Your task to perform on an android device: turn on showing notifications on the lock screen Image 0: 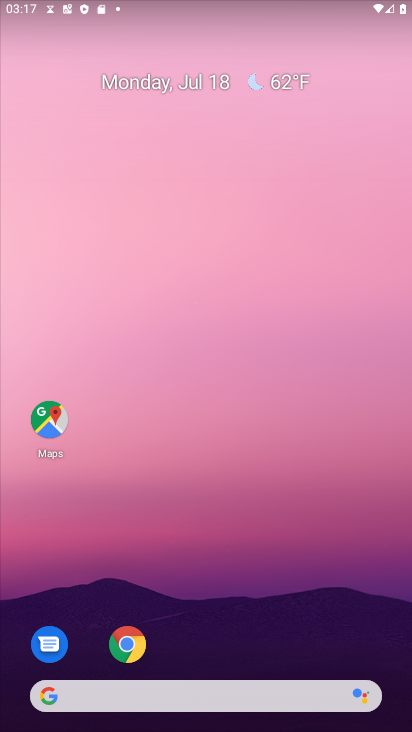
Step 0: drag from (339, 672) to (243, 100)
Your task to perform on an android device: turn on showing notifications on the lock screen Image 1: 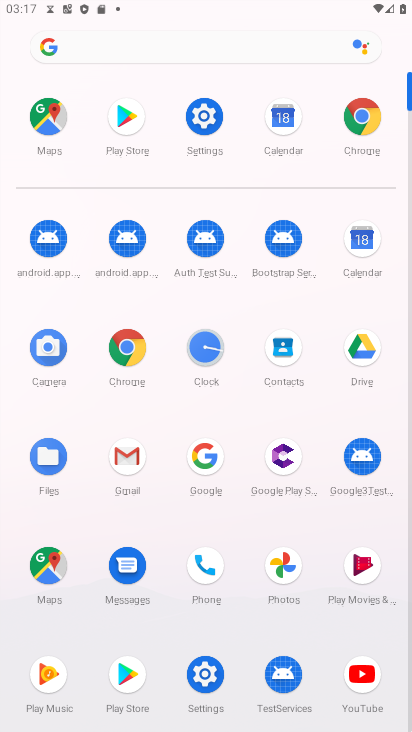
Step 1: click (224, 124)
Your task to perform on an android device: turn on showing notifications on the lock screen Image 2: 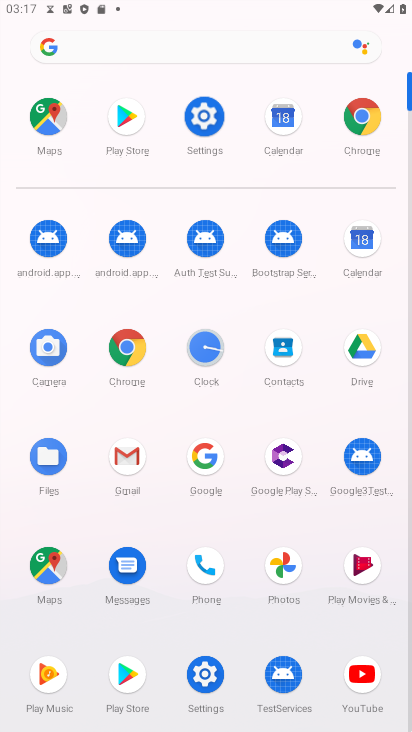
Step 2: click (217, 115)
Your task to perform on an android device: turn on showing notifications on the lock screen Image 3: 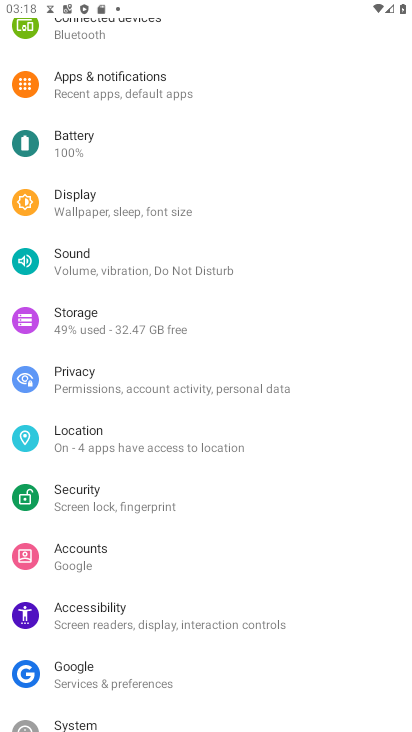
Step 3: click (120, 82)
Your task to perform on an android device: turn on showing notifications on the lock screen Image 4: 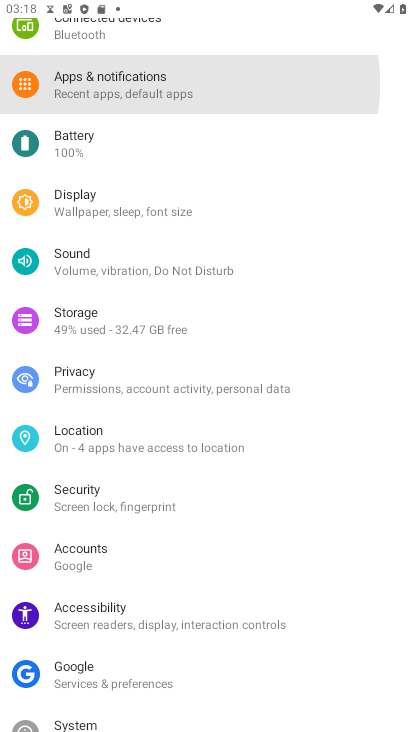
Step 4: click (124, 86)
Your task to perform on an android device: turn on showing notifications on the lock screen Image 5: 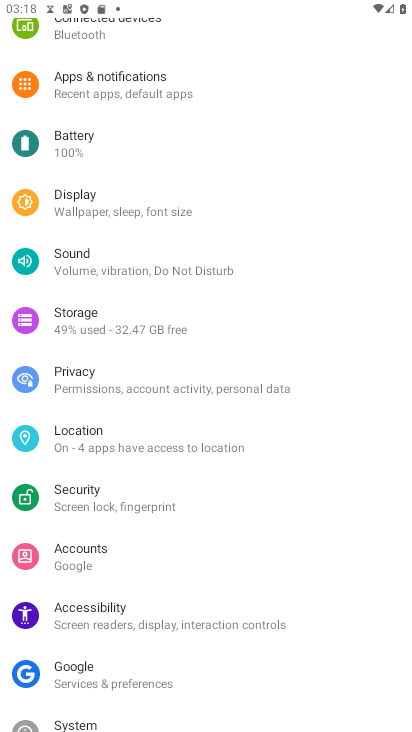
Step 5: click (124, 89)
Your task to perform on an android device: turn on showing notifications on the lock screen Image 6: 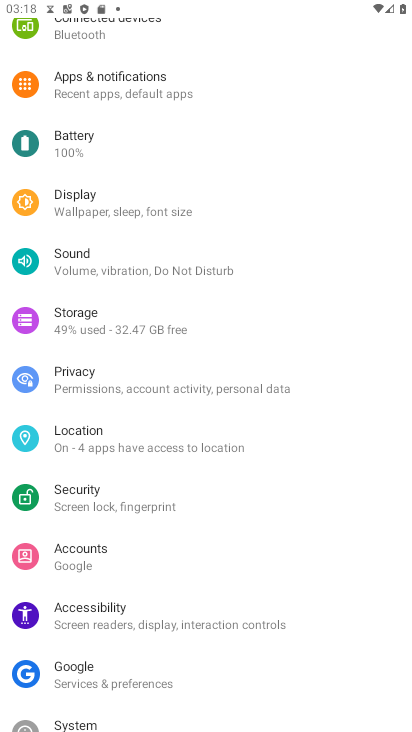
Step 6: click (124, 89)
Your task to perform on an android device: turn on showing notifications on the lock screen Image 7: 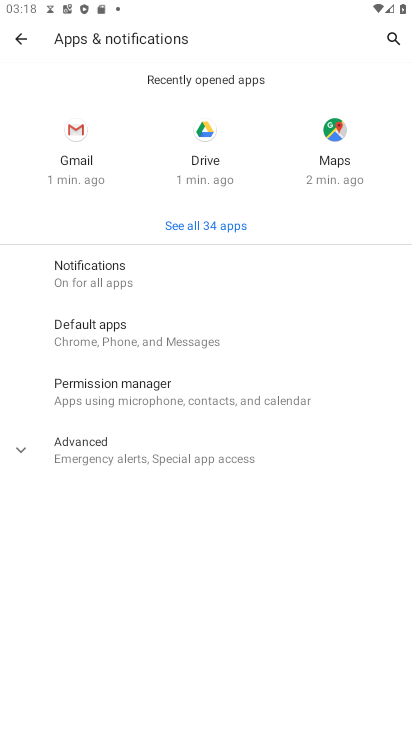
Step 7: click (89, 266)
Your task to perform on an android device: turn on showing notifications on the lock screen Image 8: 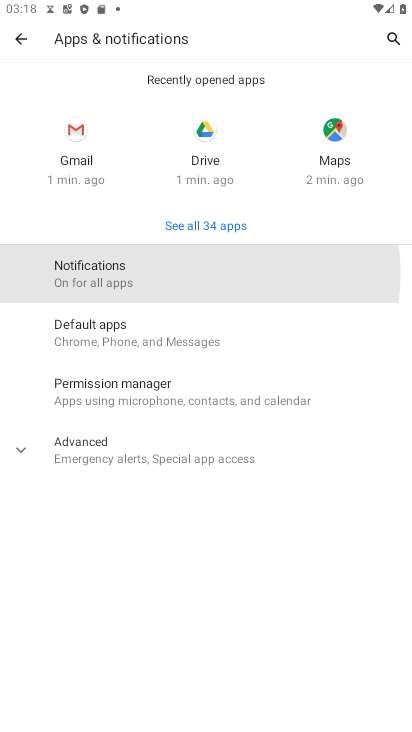
Step 8: click (90, 266)
Your task to perform on an android device: turn on showing notifications on the lock screen Image 9: 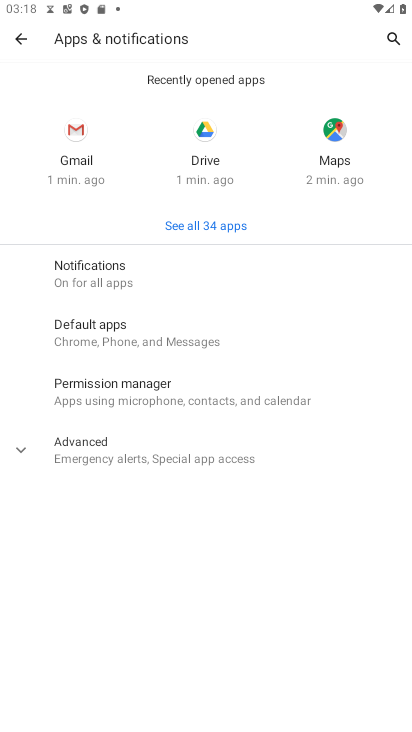
Step 9: click (90, 266)
Your task to perform on an android device: turn on showing notifications on the lock screen Image 10: 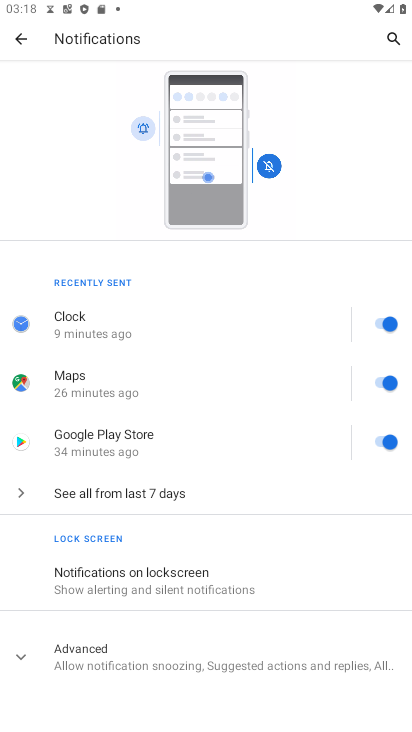
Step 10: click (143, 569)
Your task to perform on an android device: turn on showing notifications on the lock screen Image 11: 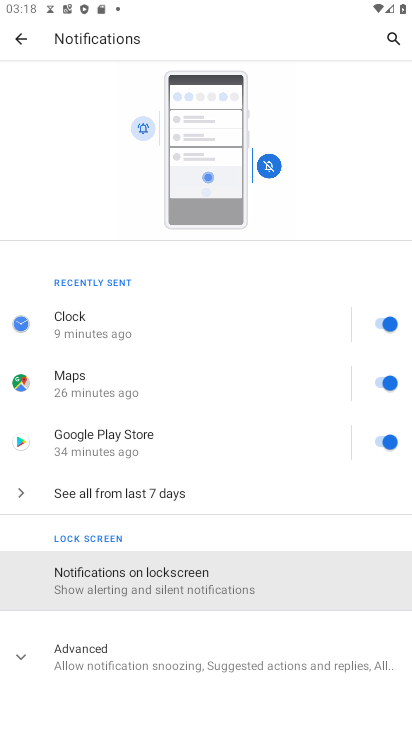
Step 11: click (143, 569)
Your task to perform on an android device: turn on showing notifications on the lock screen Image 12: 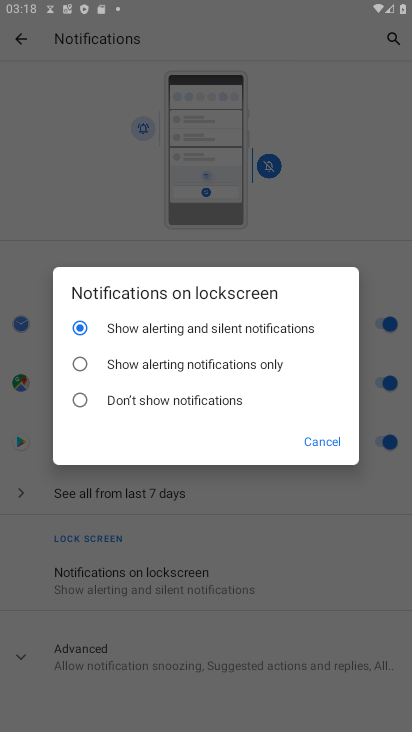
Step 12: click (143, 569)
Your task to perform on an android device: turn on showing notifications on the lock screen Image 13: 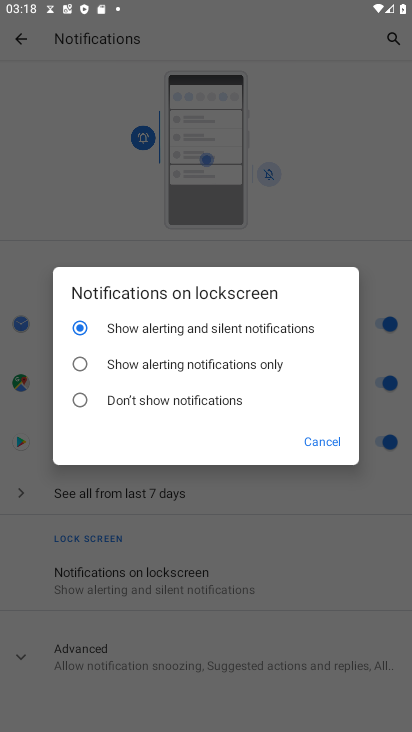
Step 13: click (329, 436)
Your task to perform on an android device: turn on showing notifications on the lock screen Image 14: 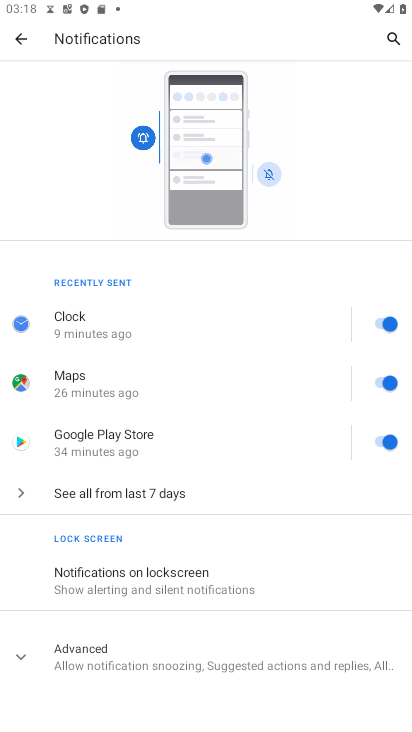
Step 14: task complete